Your task to perform on an android device: change the clock display to digital Image 0: 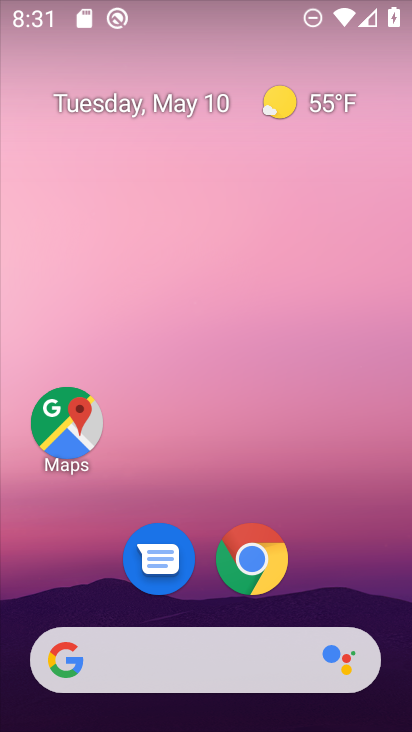
Step 0: drag from (219, 723) to (200, 153)
Your task to perform on an android device: change the clock display to digital Image 1: 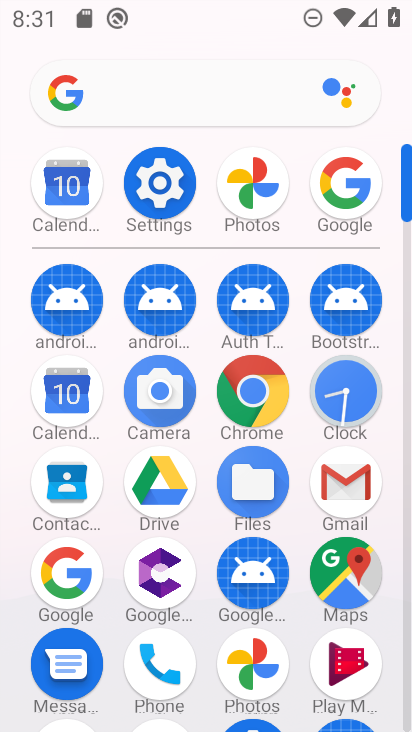
Step 1: click (353, 386)
Your task to perform on an android device: change the clock display to digital Image 2: 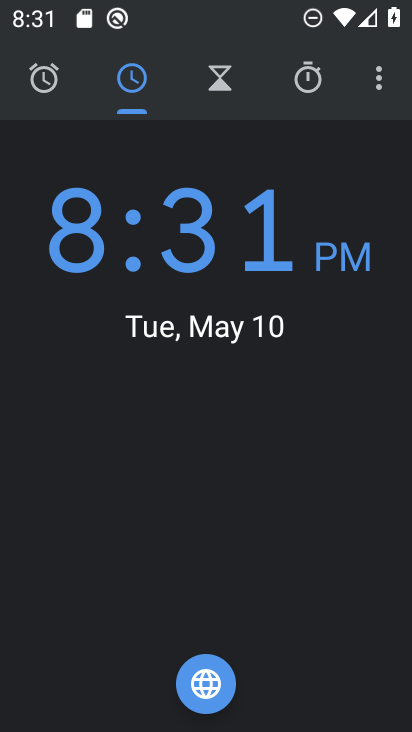
Step 2: click (378, 85)
Your task to perform on an android device: change the clock display to digital Image 3: 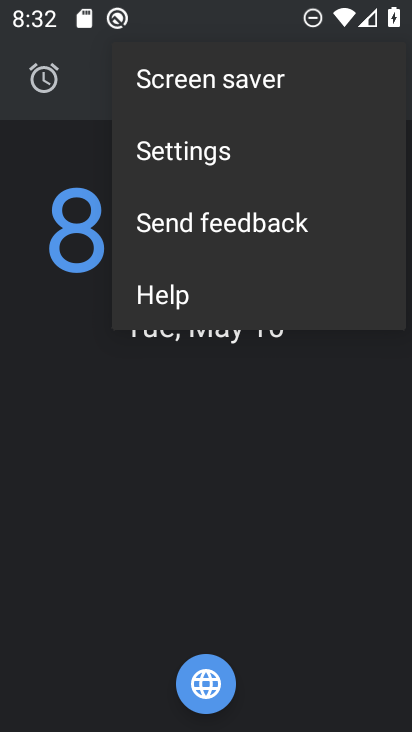
Step 3: click (187, 154)
Your task to perform on an android device: change the clock display to digital Image 4: 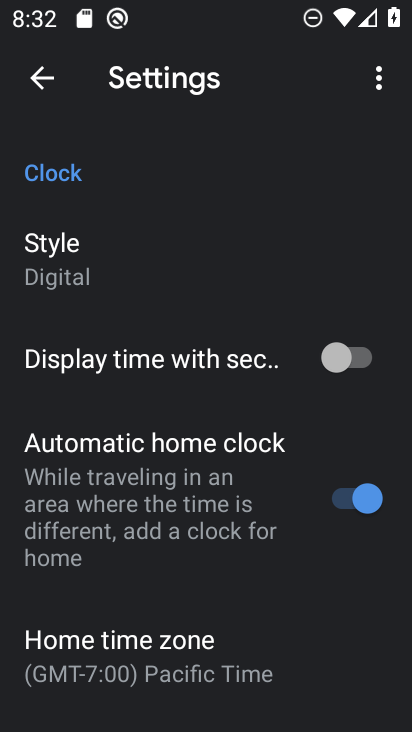
Step 4: task complete